Your task to perform on an android device: Open the map Image 0: 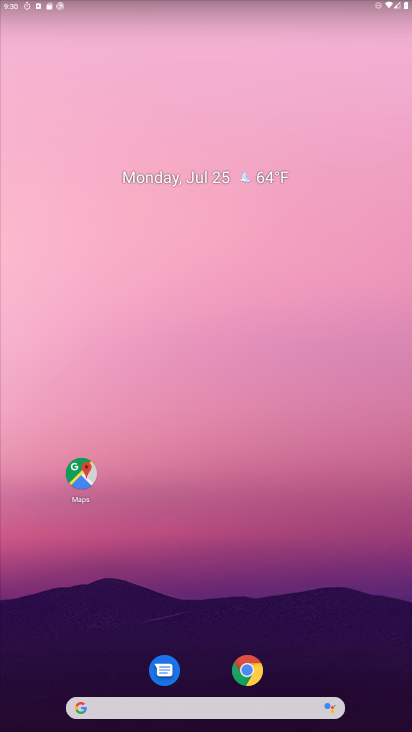
Step 0: drag from (355, 645) to (151, 37)
Your task to perform on an android device: Open the map Image 1: 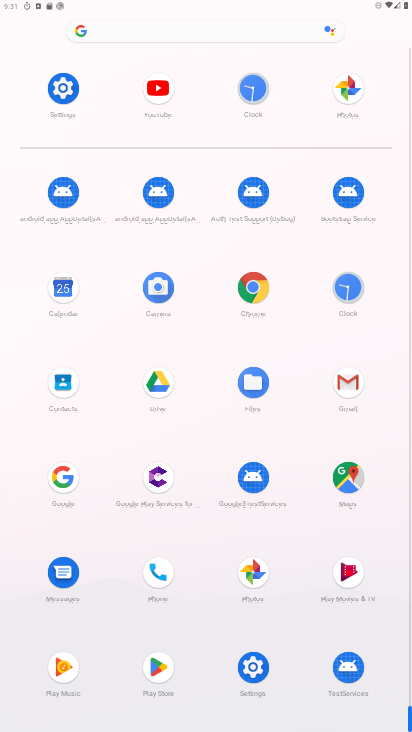
Step 1: click (351, 482)
Your task to perform on an android device: Open the map Image 2: 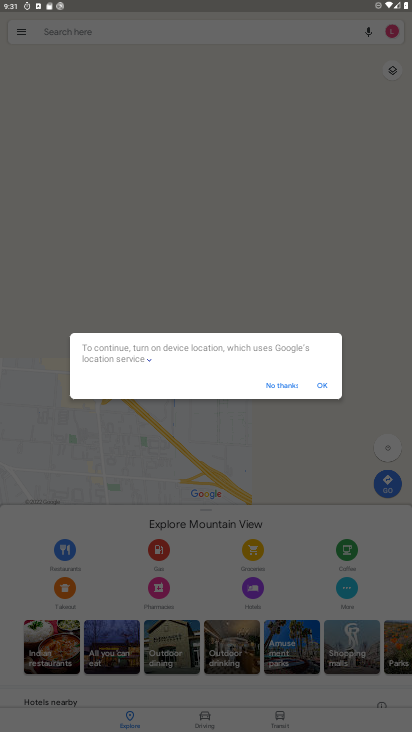
Step 2: task complete